Your task to perform on an android device: set the timer Image 0: 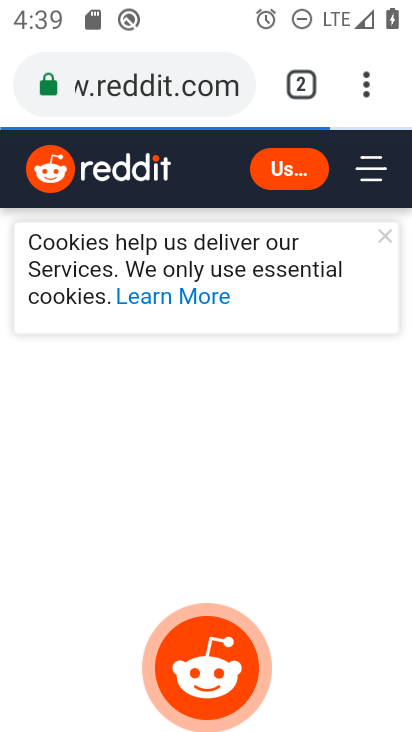
Step 0: press home button
Your task to perform on an android device: set the timer Image 1: 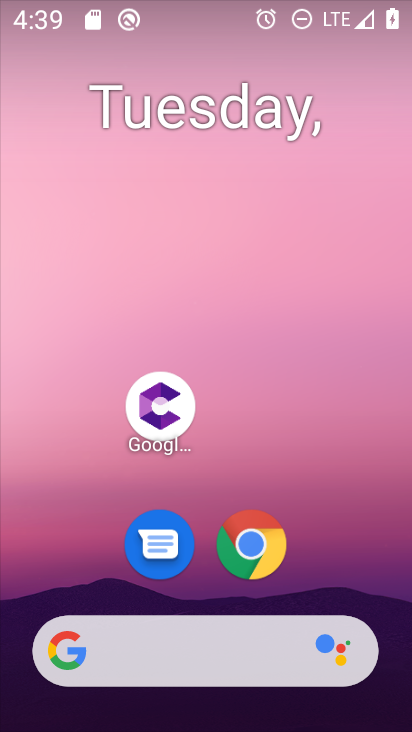
Step 1: drag from (373, 572) to (361, 153)
Your task to perform on an android device: set the timer Image 2: 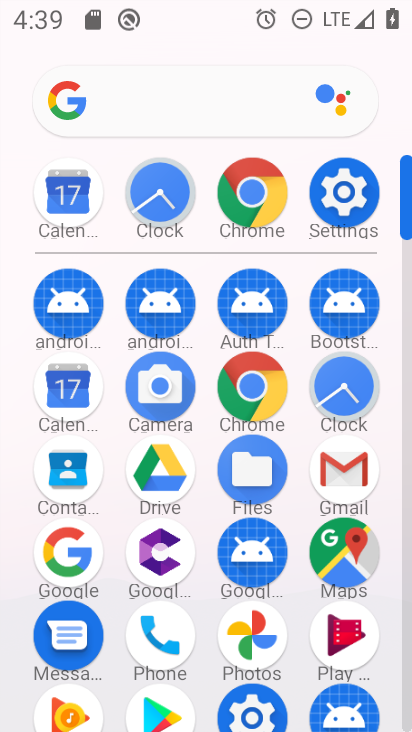
Step 2: click (360, 384)
Your task to perform on an android device: set the timer Image 3: 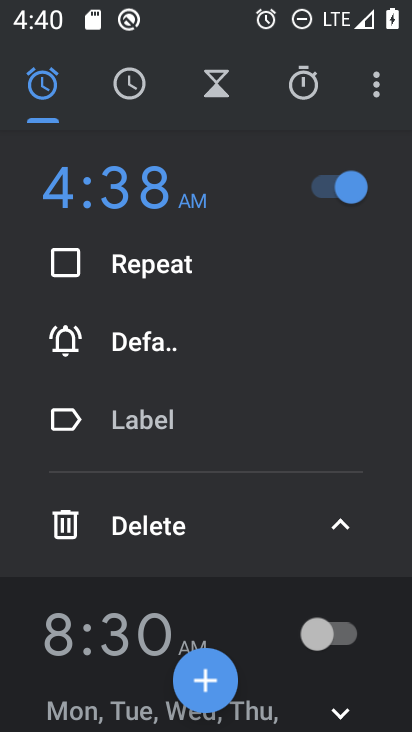
Step 3: click (220, 94)
Your task to perform on an android device: set the timer Image 4: 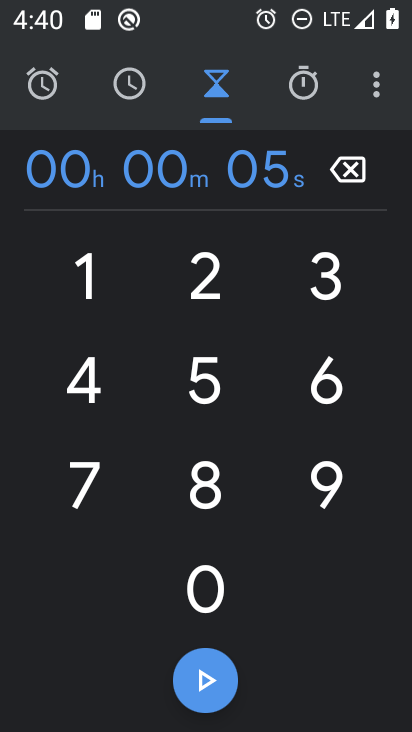
Step 4: click (211, 381)
Your task to perform on an android device: set the timer Image 5: 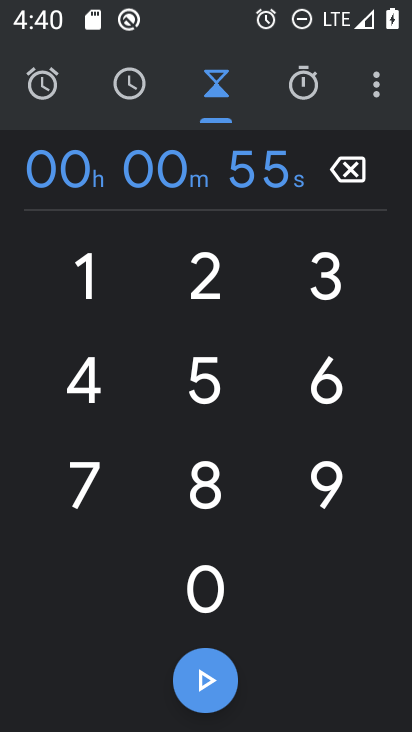
Step 5: task complete